Your task to perform on an android device: Show me popular videos on Youtube Image 0: 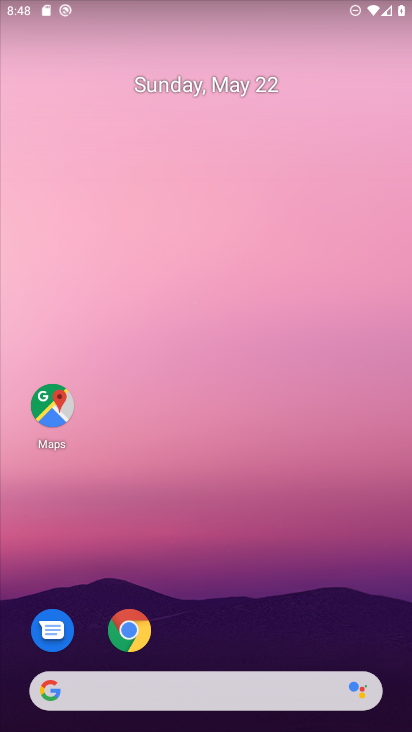
Step 0: drag from (297, 622) to (282, 121)
Your task to perform on an android device: Show me popular videos on Youtube Image 1: 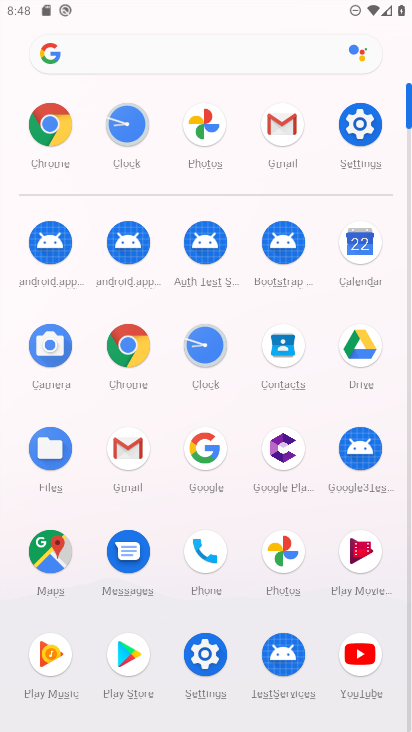
Step 1: click (356, 659)
Your task to perform on an android device: Show me popular videos on Youtube Image 2: 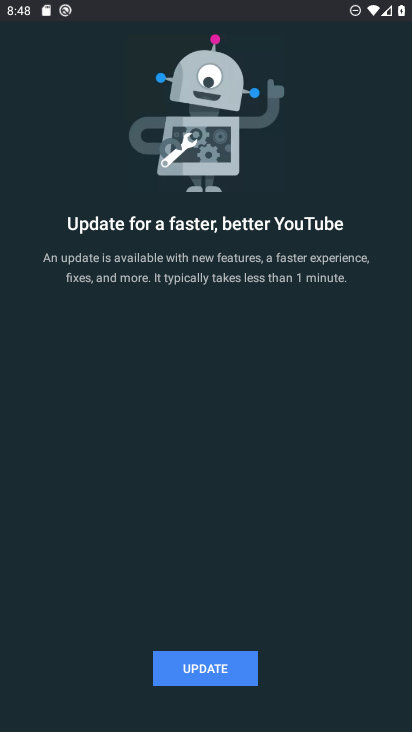
Step 2: click (235, 659)
Your task to perform on an android device: Show me popular videos on Youtube Image 3: 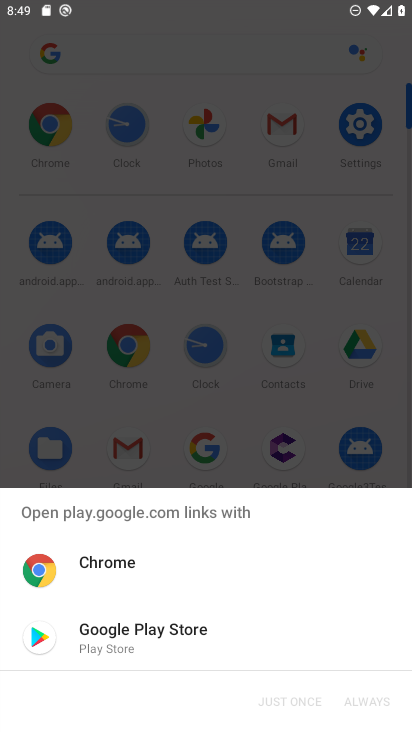
Step 3: click (138, 623)
Your task to perform on an android device: Show me popular videos on Youtube Image 4: 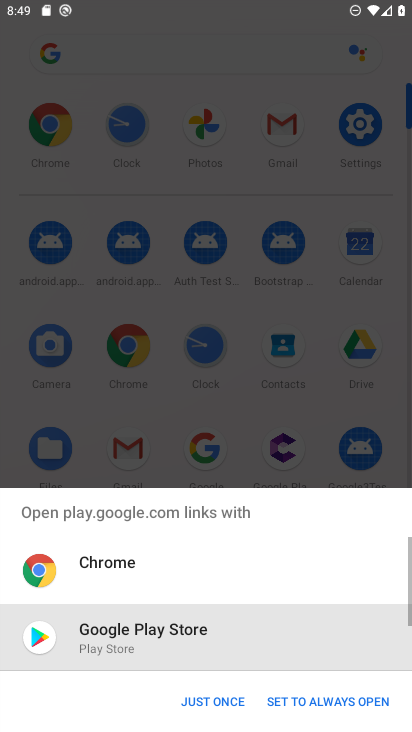
Step 4: click (209, 709)
Your task to perform on an android device: Show me popular videos on Youtube Image 5: 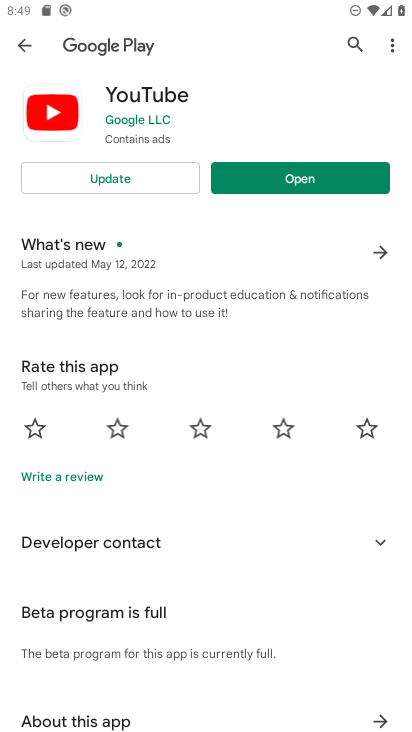
Step 5: click (113, 177)
Your task to perform on an android device: Show me popular videos on Youtube Image 6: 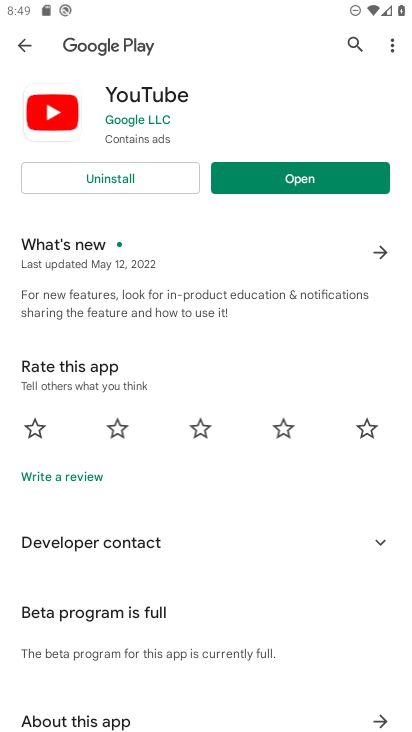
Step 6: click (343, 172)
Your task to perform on an android device: Show me popular videos on Youtube Image 7: 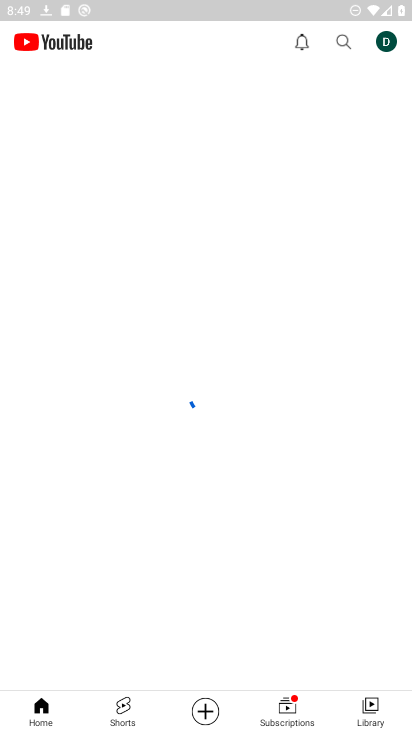
Step 7: task complete